Your task to perform on an android device: Open calendar and show me the third week of next month Image 0: 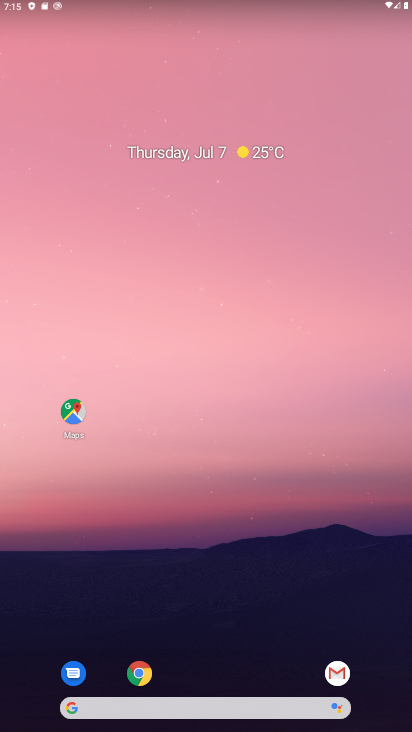
Step 0: drag from (223, 717) to (168, 289)
Your task to perform on an android device: Open calendar and show me the third week of next month Image 1: 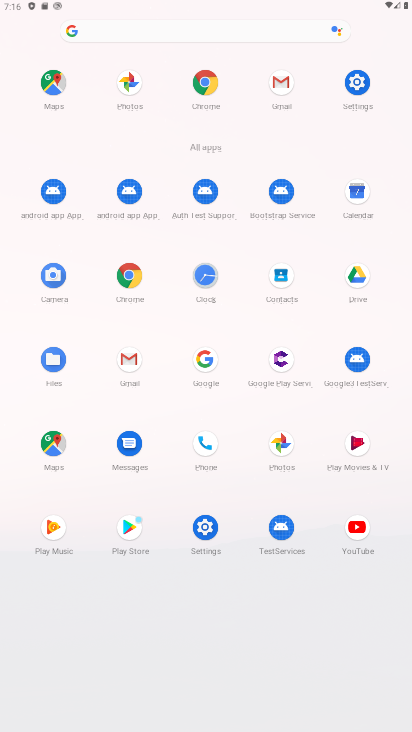
Step 1: click (365, 198)
Your task to perform on an android device: Open calendar and show me the third week of next month Image 2: 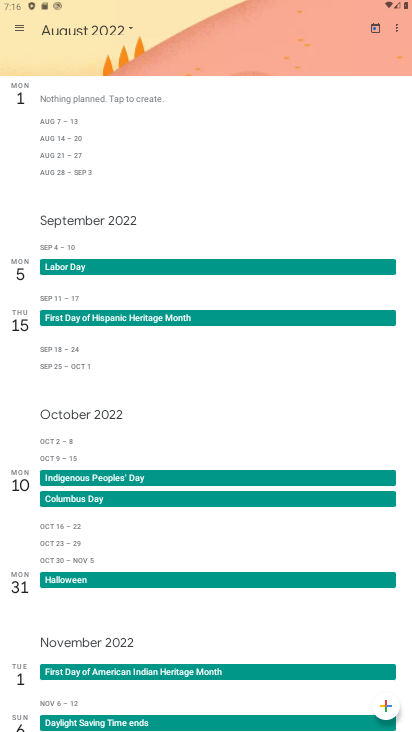
Step 2: click (27, 22)
Your task to perform on an android device: Open calendar and show me the third week of next month Image 3: 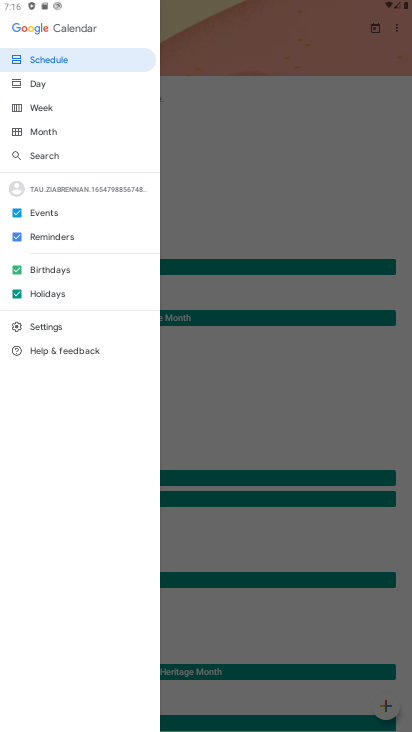
Step 3: click (51, 132)
Your task to perform on an android device: Open calendar and show me the third week of next month Image 4: 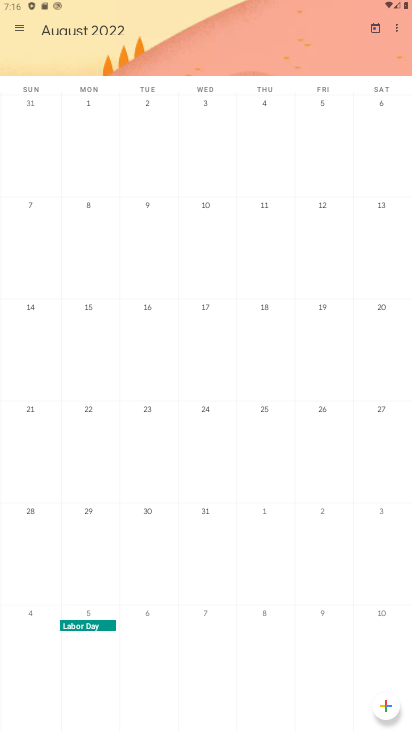
Step 4: click (89, 394)
Your task to perform on an android device: Open calendar and show me the third week of next month Image 5: 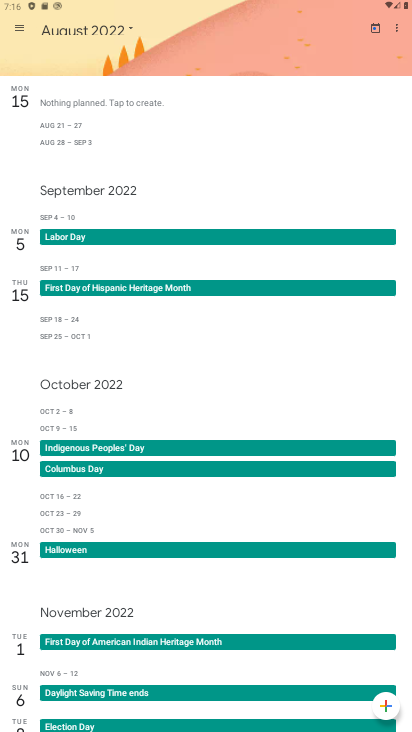
Step 5: task complete